Your task to perform on an android device: Go to CNN.com Image 0: 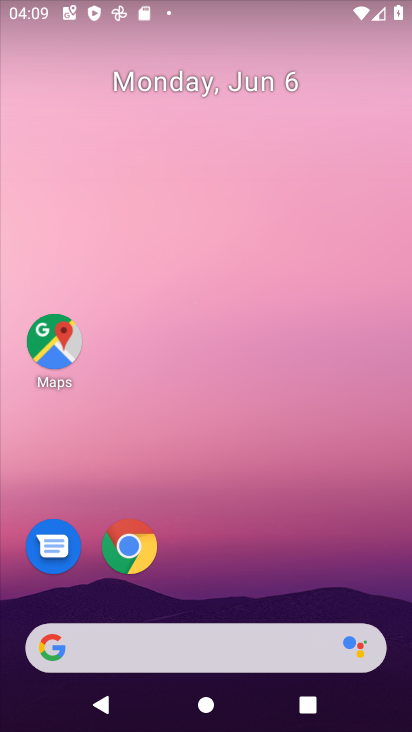
Step 0: click (210, 629)
Your task to perform on an android device: Go to CNN.com Image 1: 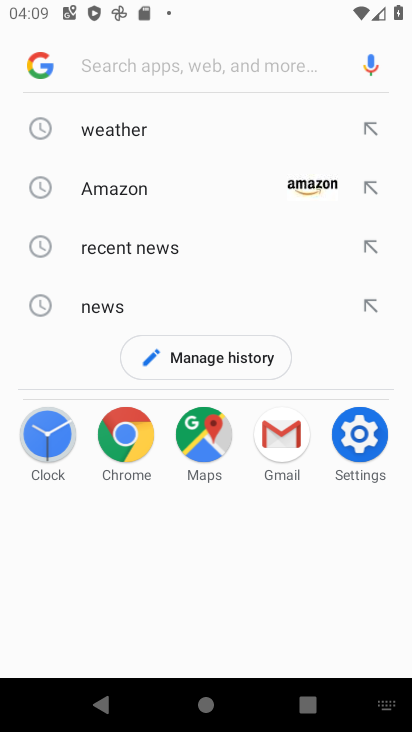
Step 1: type "cnn.cokm"
Your task to perform on an android device: Go to CNN.com Image 2: 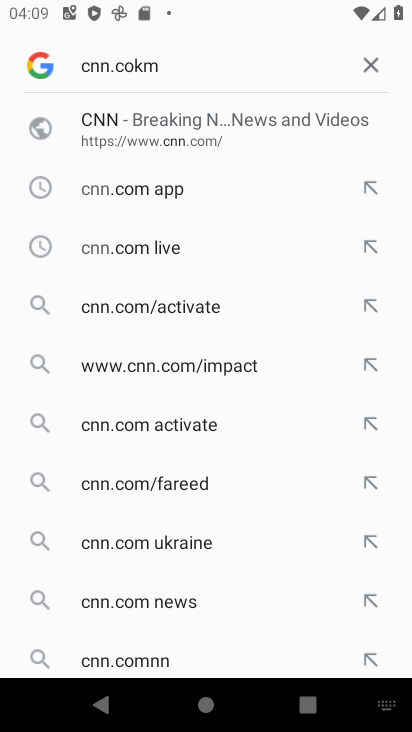
Step 2: click (79, 160)
Your task to perform on an android device: Go to CNN.com Image 3: 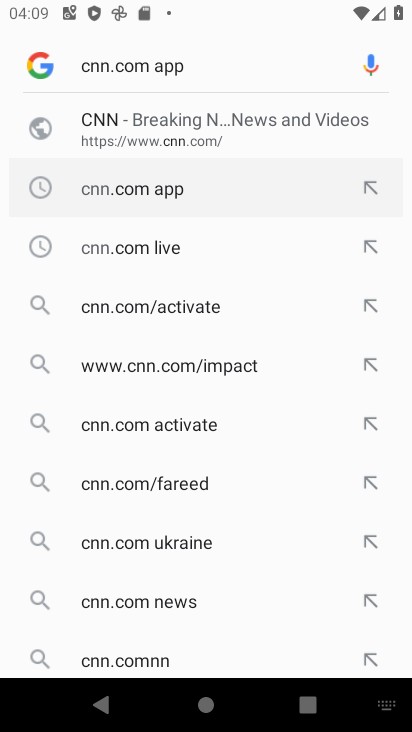
Step 3: click (131, 146)
Your task to perform on an android device: Go to CNN.com Image 4: 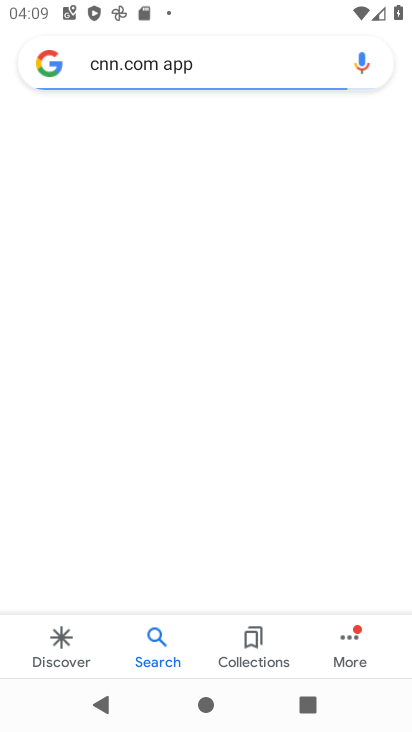
Step 4: task complete